Your task to perform on an android device: check out phone information Image 0: 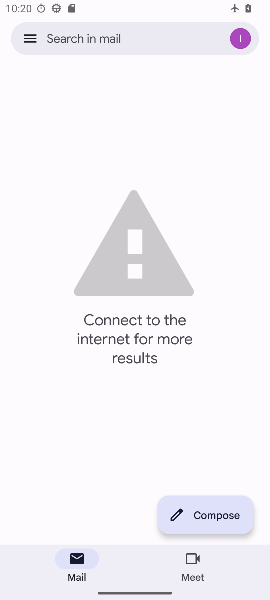
Step 0: press home button
Your task to perform on an android device: check out phone information Image 1: 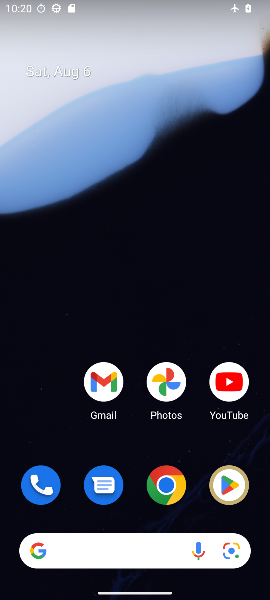
Step 1: drag from (134, 444) to (188, 3)
Your task to perform on an android device: check out phone information Image 2: 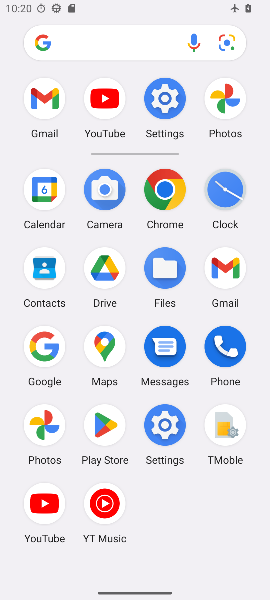
Step 2: click (222, 345)
Your task to perform on an android device: check out phone information Image 3: 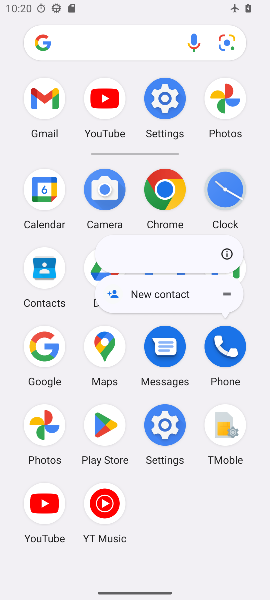
Step 3: click (226, 252)
Your task to perform on an android device: check out phone information Image 4: 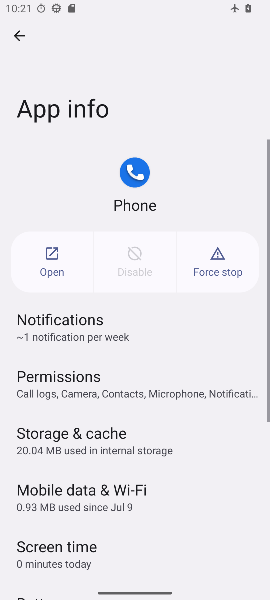
Step 4: task complete